Your task to perform on an android device: What's the weather? Image 0: 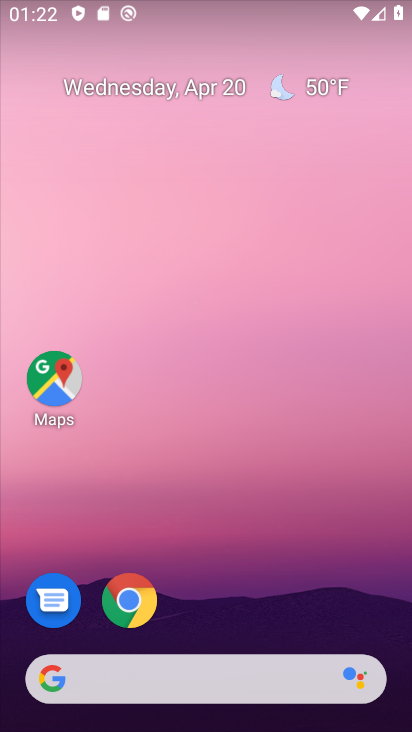
Step 0: drag from (220, 642) to (206, 140)
Your task to perform on an android device: What's the weather? Image 1: 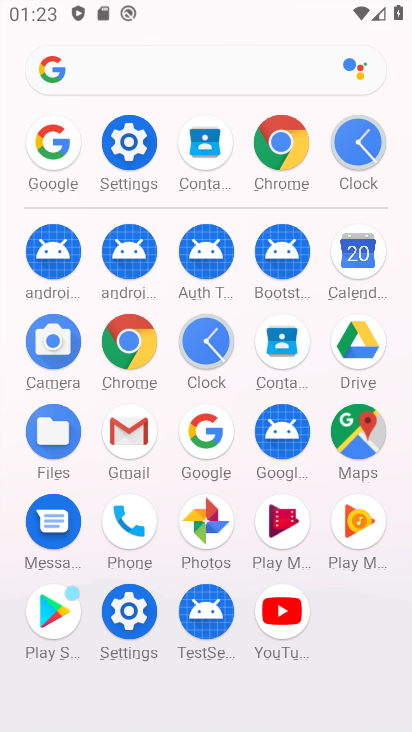
Step 1: click (53, 150)
Your task to perform on an android device: What's the weather? Image 2: 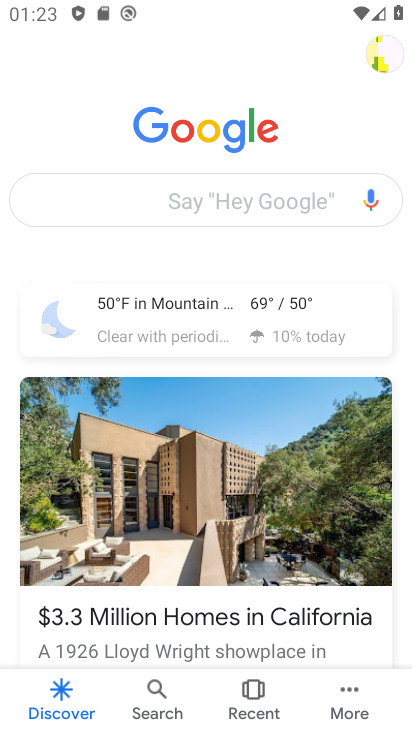
Step 2: click (147, 301)
Your task to perform on an android device: What's the weather? Image 3: 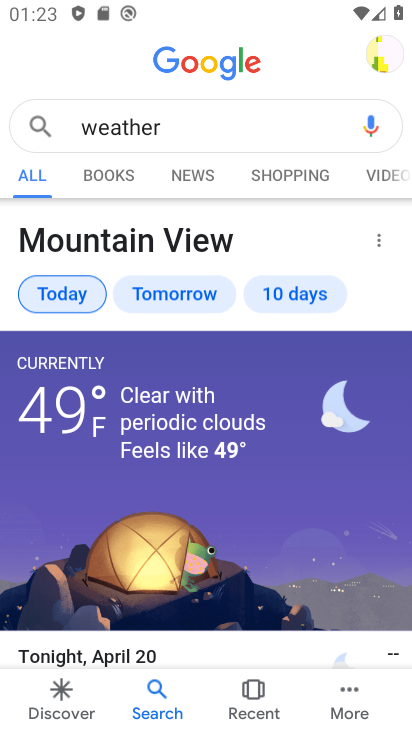
Step 3: task complete